Your task to perform on an android device: Open ESPN.com Image 0: 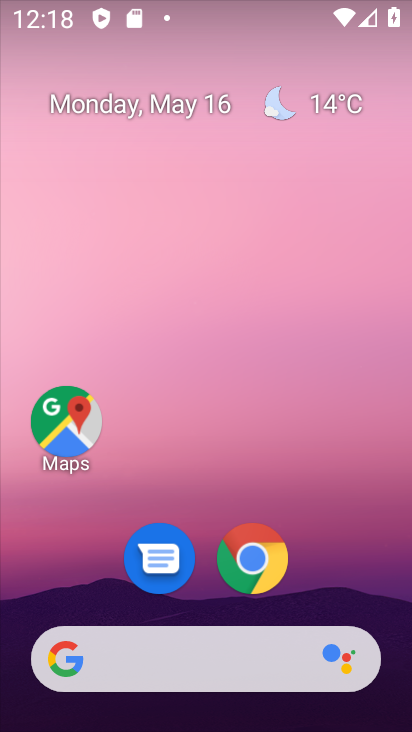
Step 0: drag from (348, 549) to (314, 147)
Your task to perform on an android device: Open ESPN.com Image 1: 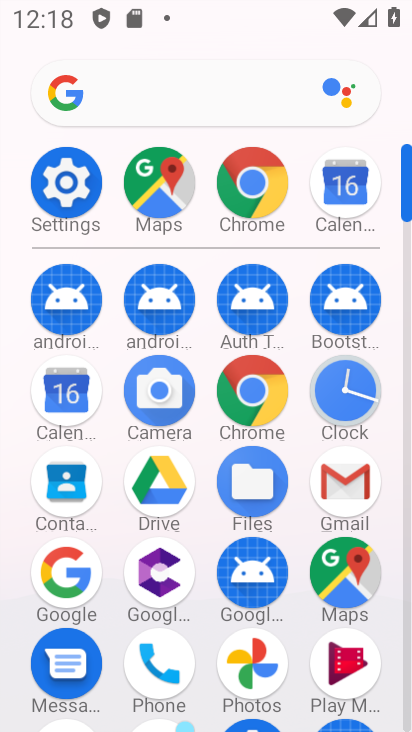
Step 1: click (247, 386)
Your task to perform on an android device: Open ESPN.com Image 2: 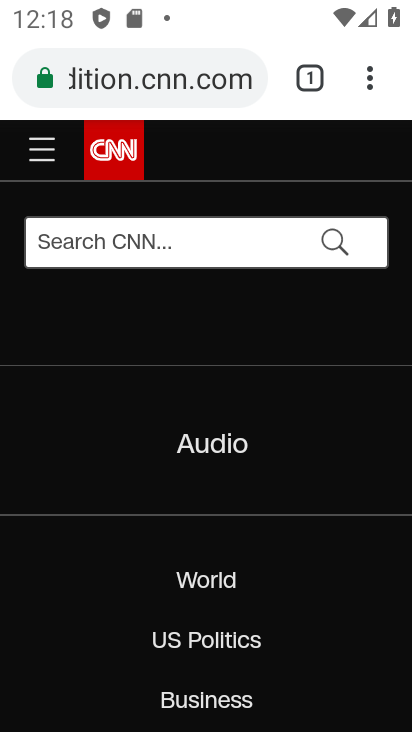
Step 2: press back button
Your task to perform on an android device: Open ESPN.com Image 3: 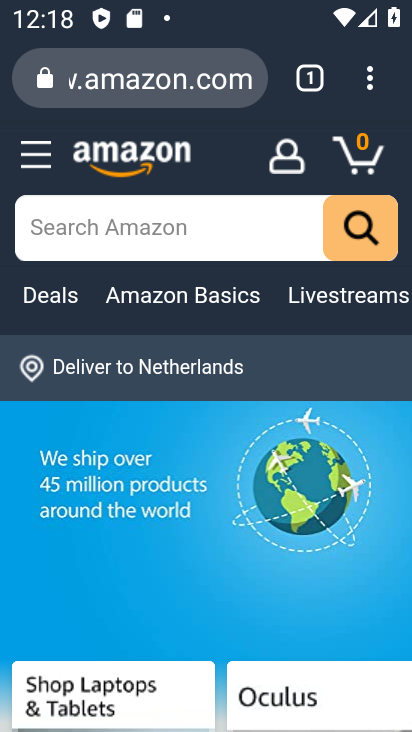
Step 3: press back button
Your task to perform on an android device: Open ESPN.com Image 4: 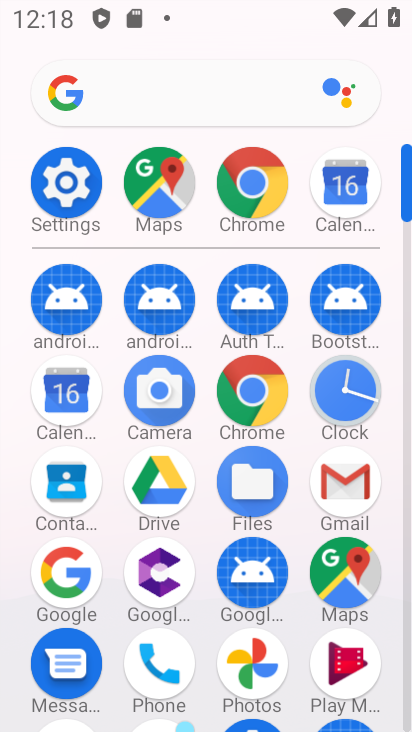
Step 4: click (270, 397)
Your task to perform on an android device: Open ESPN.com Image 5: 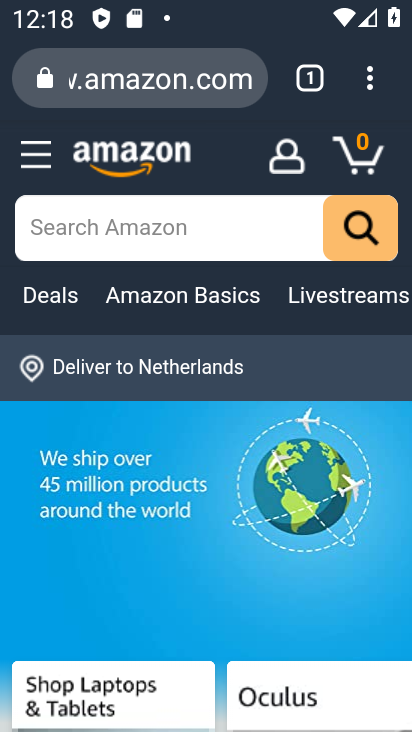
Step 5: click (165, 67)
Your task to perform on an android device: Open ESPN.com Image 6: 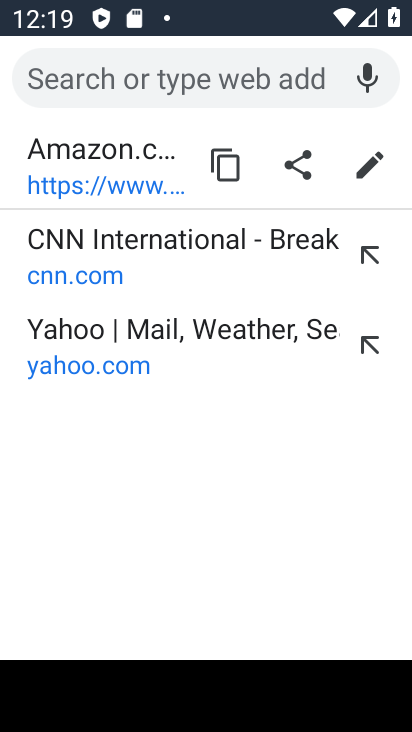
Step 6: type "espb"
Your task to perform on an android device: Open ESPN.com Image 7: 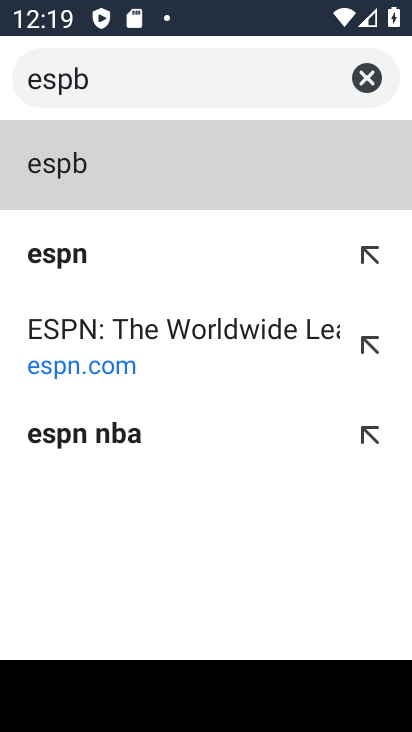
Step 7: click (114, 242)
Your task to perform on an android device: Open ESPN.com Image 8: 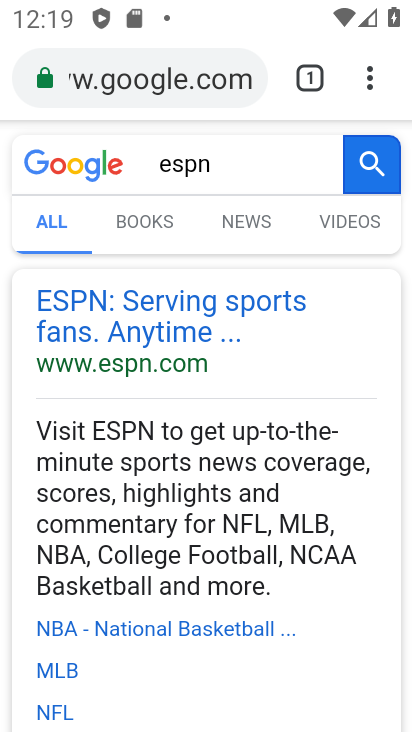
Step 8: task complete